Your task to perform on an android device: open chrome privacy settings Image 0: 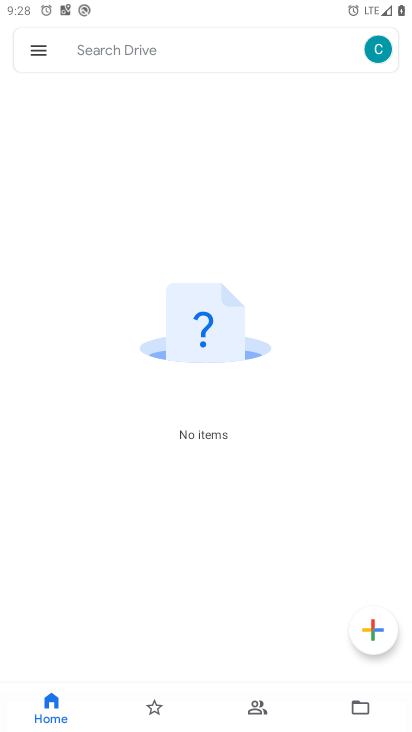
Step 0: press home button
Your task to perform on an android device: open chrome privacy settings Image 1: 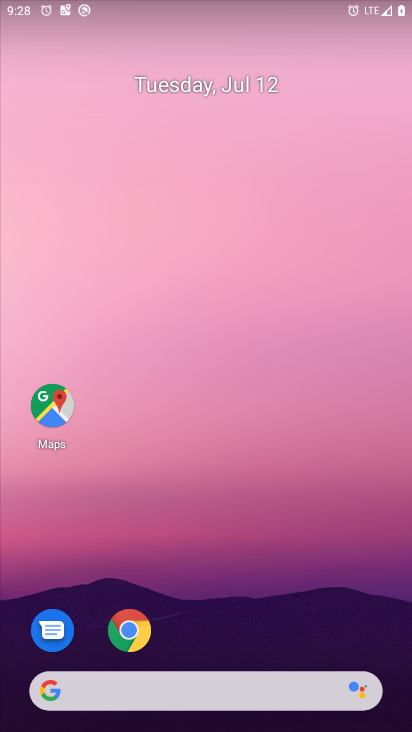
Step 1: click (127, 641)
Your task to perform on an android device: open chrome privacy settings Image 2: 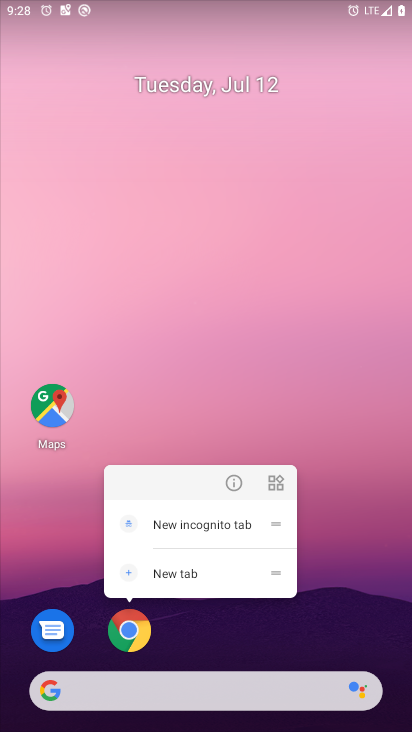
Step 2: click (127, 641)
Your task to perform on an android device: open chrome privacy settings Image 3: 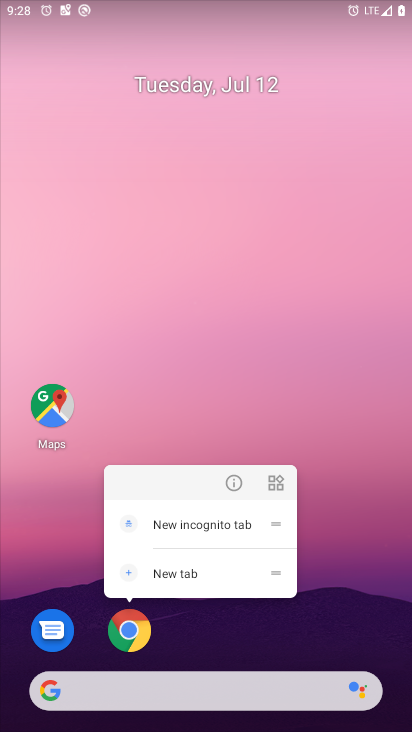
Step 3: click (138, 627)
Your task to perform on an android device: open chrome privacy settings Image 4: 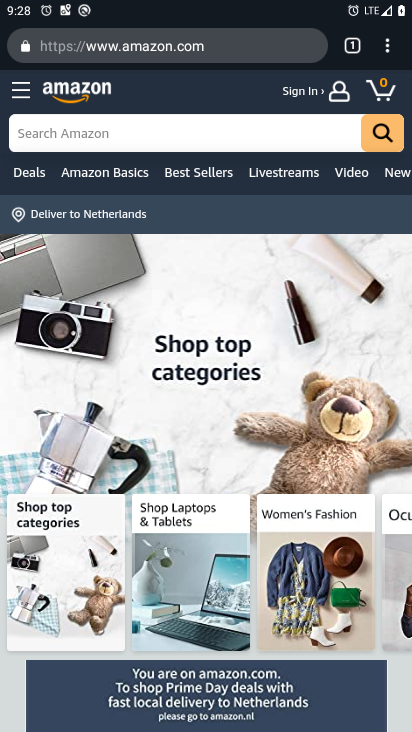
Step 4: drag from (393, 48) to (239, 530)
Your task to perform on an android device: open chrome privacy settings Image 5: 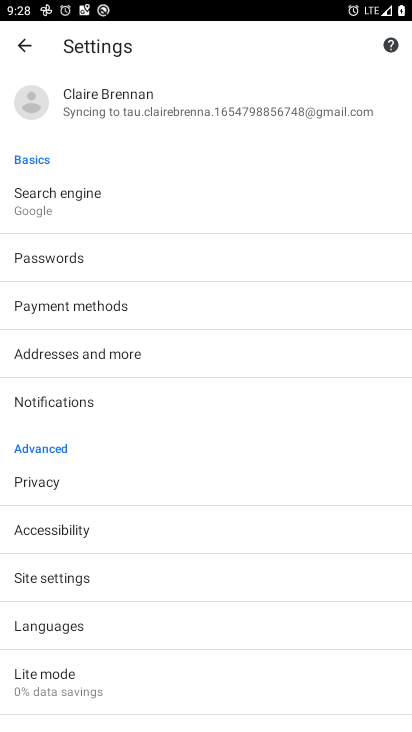
Step 5: click (13, 476)
Your task to perform on an android device: open chrome privacy settings Image 6: 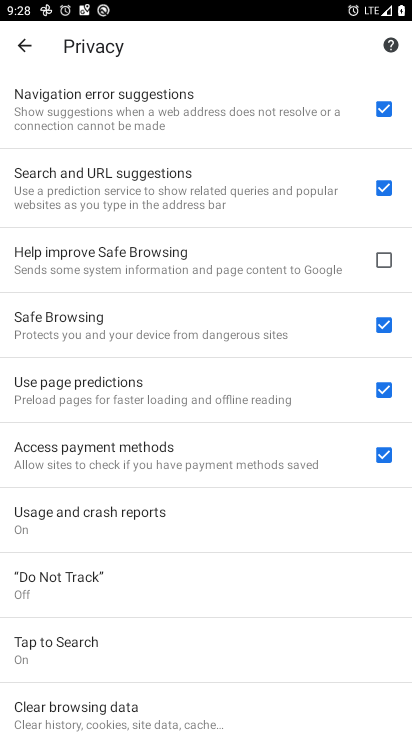
Step 6: task complete